Your task to perform on an android device: Search for Mexican restaurants on Maps Image 0: 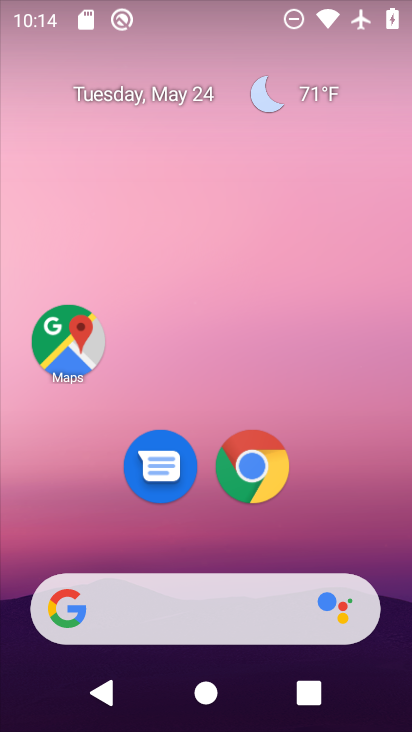
Step 0: click (77, 358)
Your task to perform on an android device: Search for Mexican restaurants on Maps Image 1: 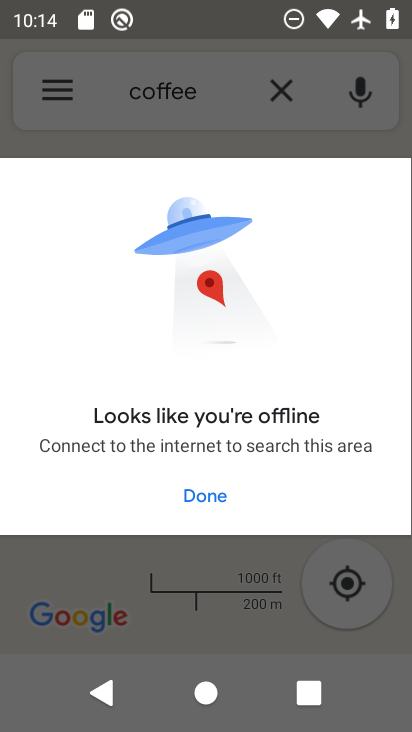
Step 1: click (197, 481)
Your task to perform on an android device: Search for Mexican restaurants on Maps Image 2: 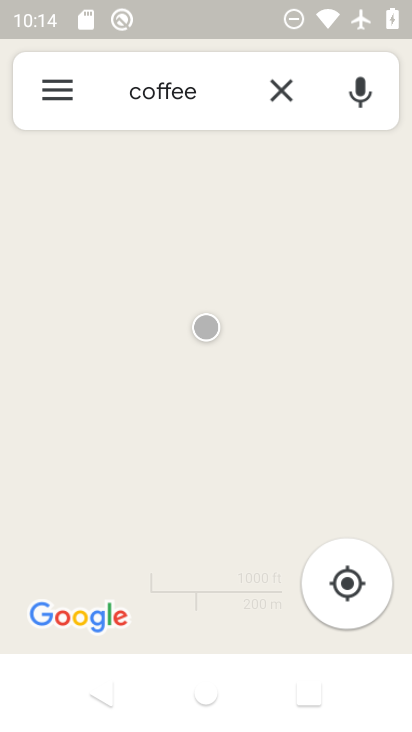
Step 2: click (279, 92)
Your task to perform on an android device: Search for Mexican restaurants on Maps Image 3: 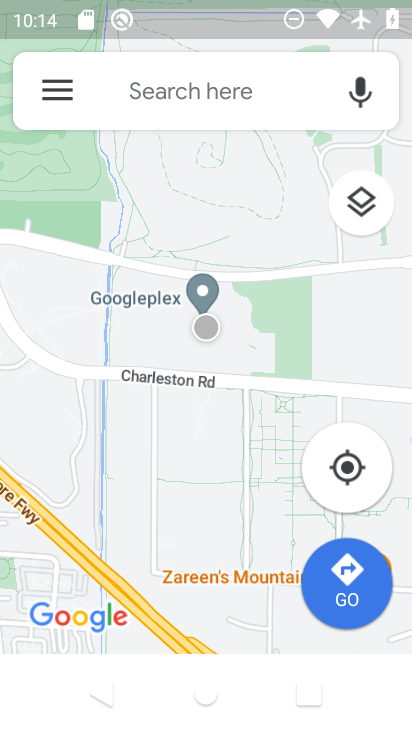
Step 3: click (171, 103)
Your task to perform on an android device: Search for Mexican restaurants on Maps Image 4: 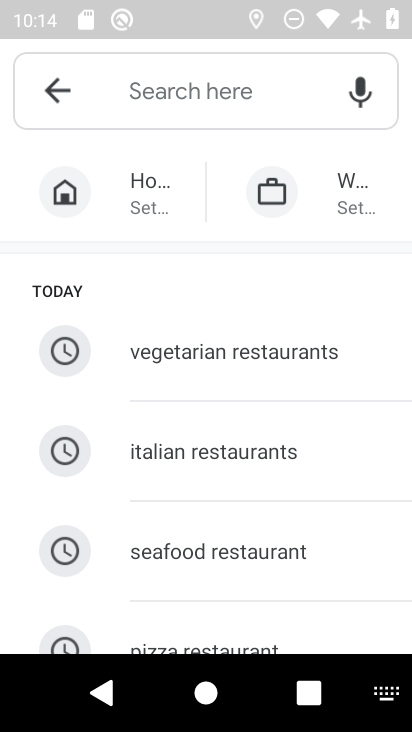
Step 4: type "mexican restaurants"
Your task to perform on an android device: Search for Mexican restaurants on Maps Image 5: 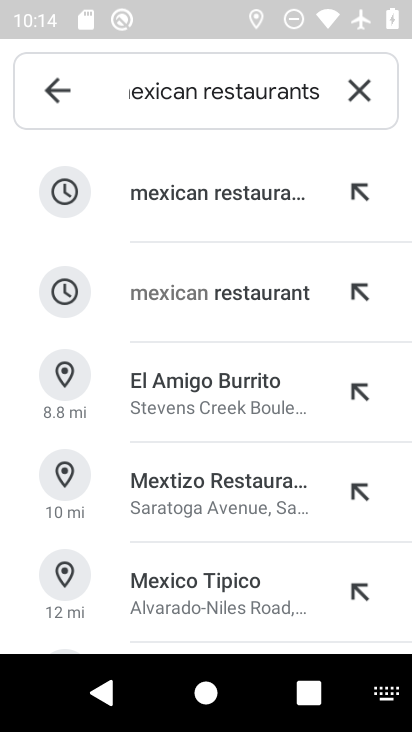
Step 5: click (225, 182)
Your task to perform on an android device: Search for Mexican restaurants on Maps Image 6: 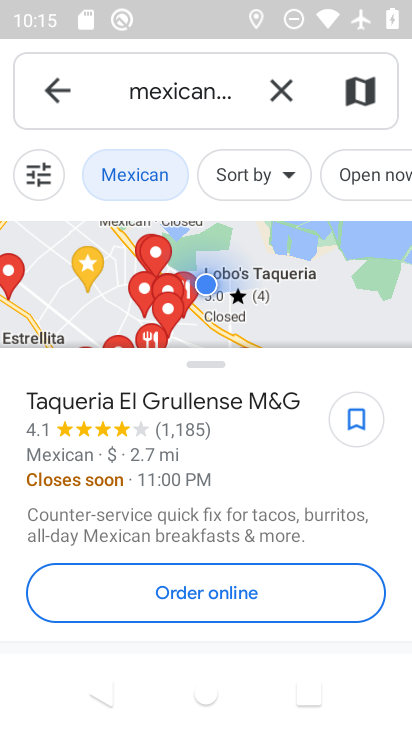
Step 6: task complete